Your task to perform on an android device: Toggle the flashlight Image 0: 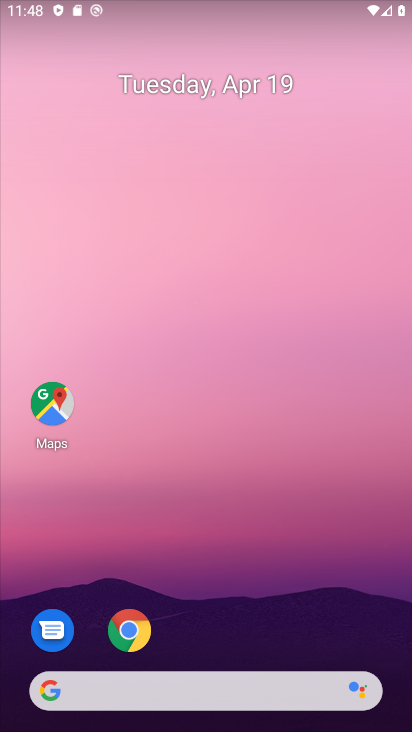
Step 0: drag from (206, 16) to (204, 564)
Your task to perform on an android device: Toggle the flashlight Image 1: 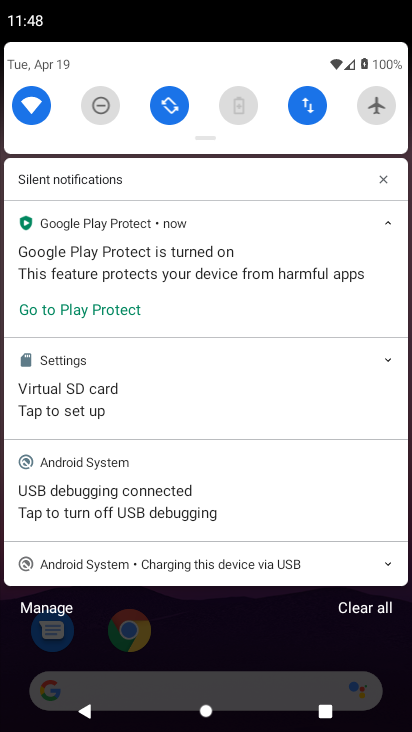
Step 1: drag from (202, 129) to (202, 449)
Your task to perform on an android device: Toggle the flashlight Image 2: 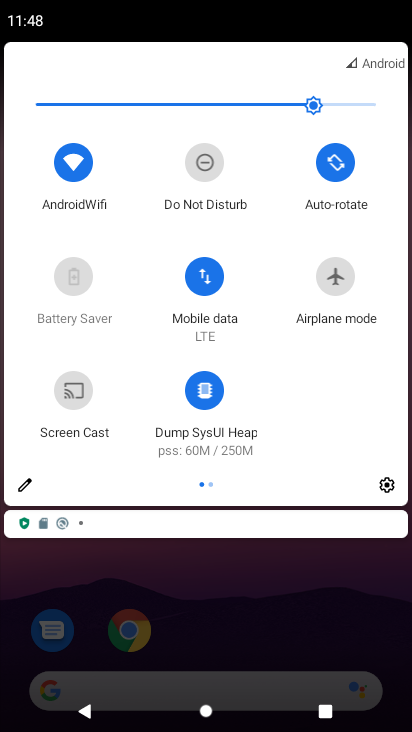
Step 2: click (19, 481)
Your task to perform on an android device: Toggle the flashlight Image 3: 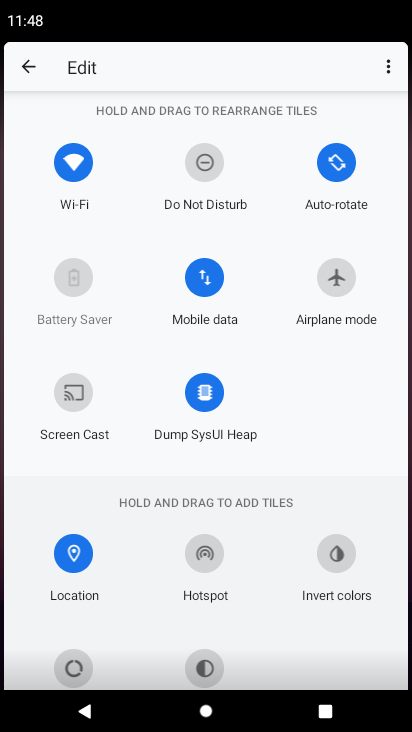
Step 3: task complete